Your task to perform on an android device: turn off priority inbox in the gmail app Image 0: 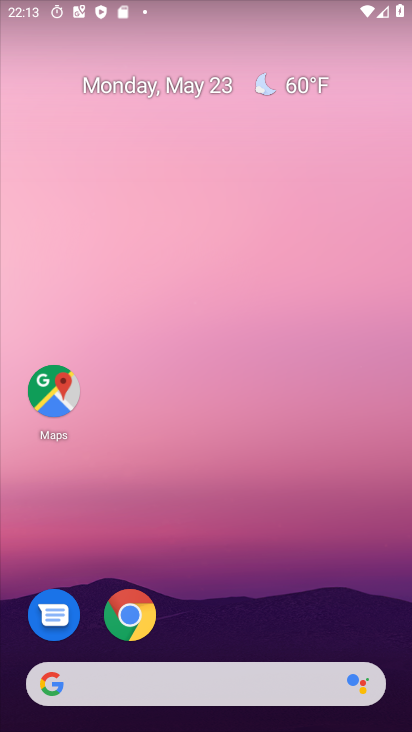
Step 0: drag from (226, 599) to (213, 142)
Your task to perform on an android device: turn off priority inbox in the gmail app Image 1: 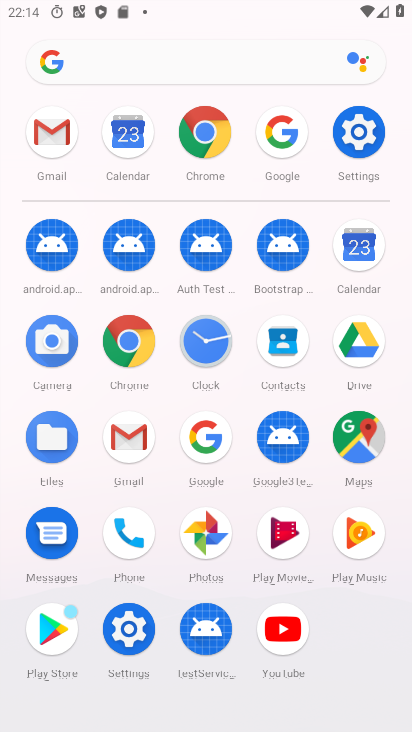
Step 1: click (126, 428)
Your task to perform on an android device: turn off priority inbox in the gmail app Image 2: 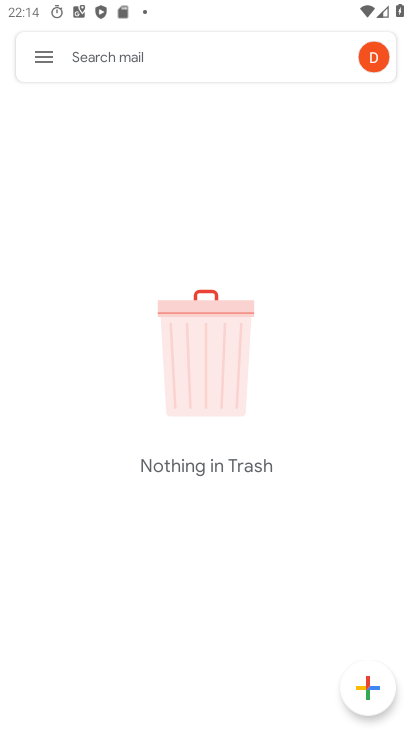
Step 2: click (45, 61)
Your task to perform on an android device: turn off priority inbox in the gmail app Image 3: 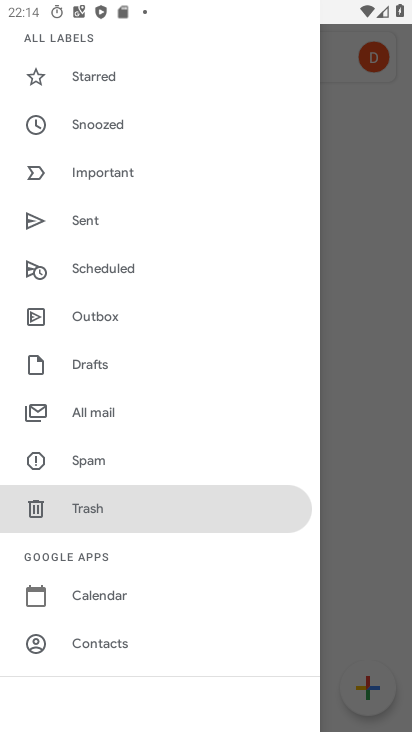
Step 3: drag from (161, 607) to (157, 224)
Your task to perform on an android device: turn off priority inbox in the gmail app Image 4: 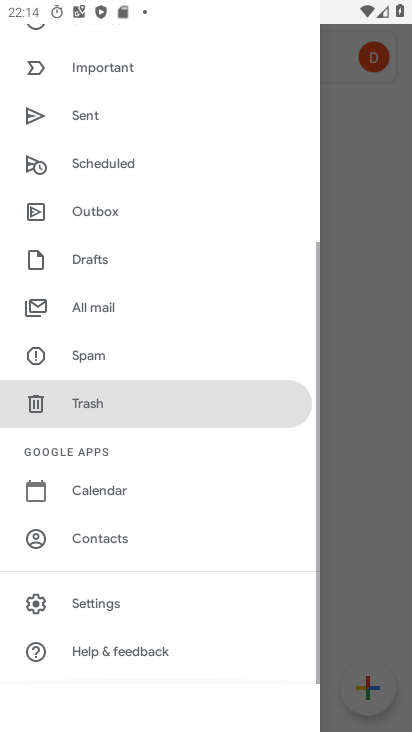
Step 4: click (134, 611)
Your task to perform on an android device: turn off priority inbox in the gmail app Image 5: 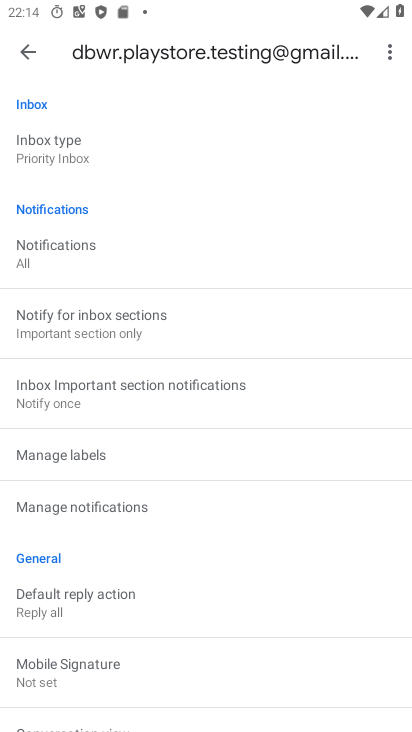
Step 5: click (70, 155)
Your task to perform on an android device: turn off priority inbox in the gmail app Image 6: 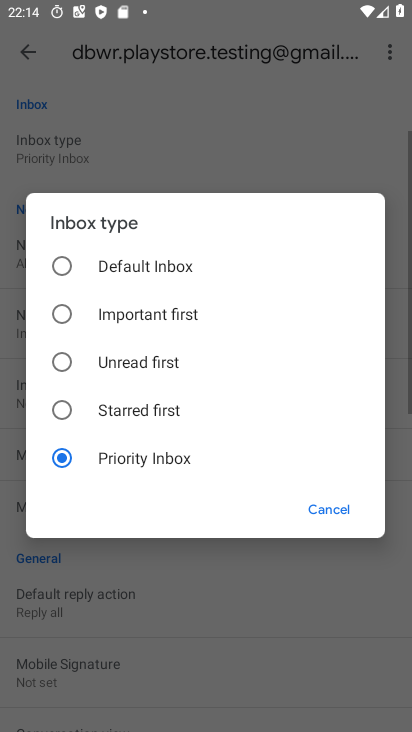
Step 6: click (93, 264)
Your task to perform on an android device: turn off priority inbox in the gmail app Image 7: 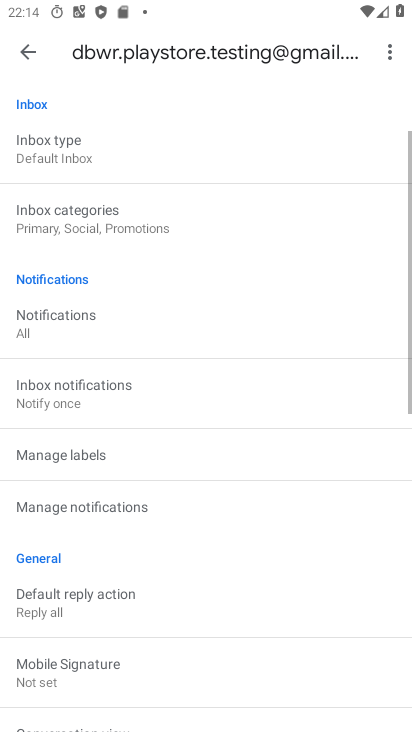
Step 7: task complete